Your task to perform on an android device: set default search engine in the chrome app Image 0: 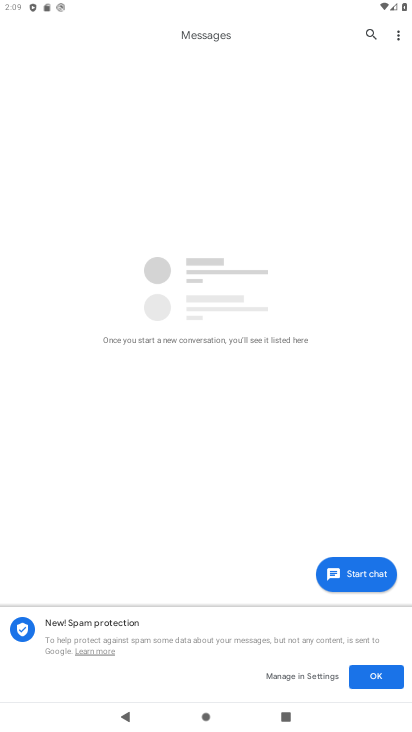
Step 0: press home button
Your task to perform on an android device: set default search engine in the chrome app Image 1: 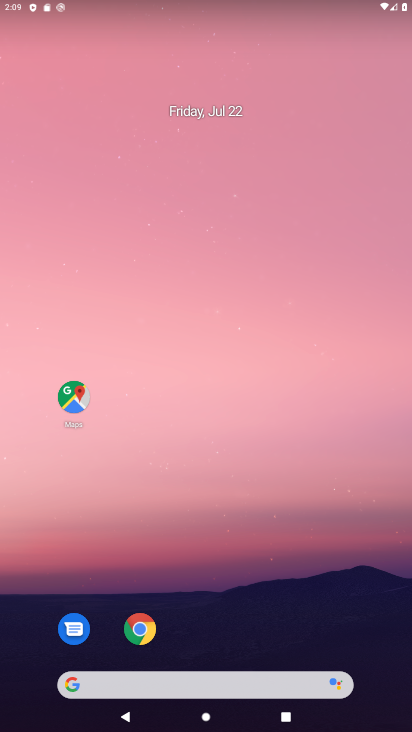
Step 1: click (131, 635)
Your task to perform on an android device: set default search engine in the chrome app Image 2: 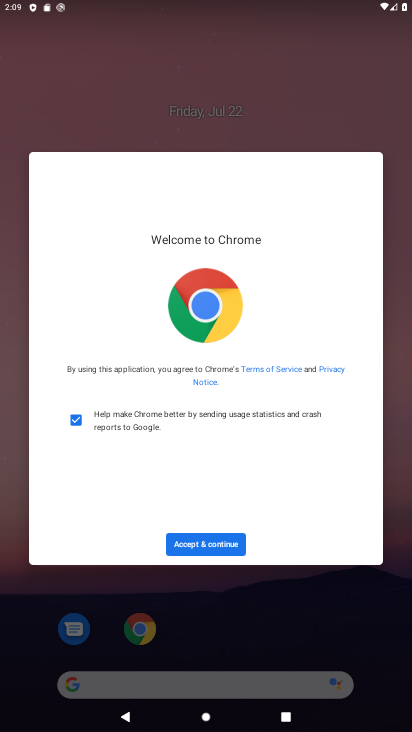
Step 2: click (207, 556)
Your task to perform on an android device: set default search engine in the chrome app Image 3: 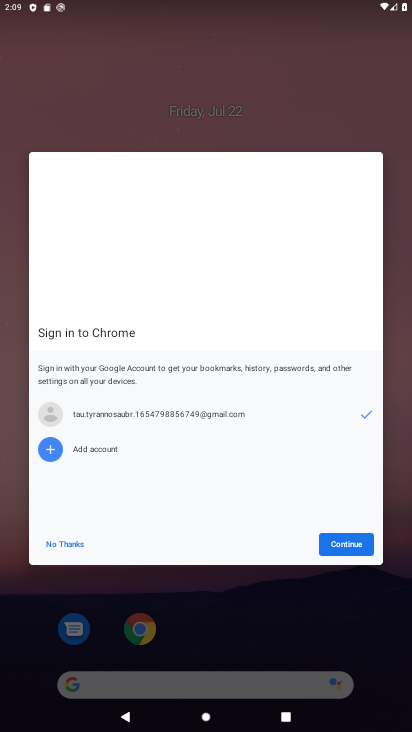
Step 3: click (330, 535)
Your task to perform on an android device: set default search engine in the chrome app Image 4: 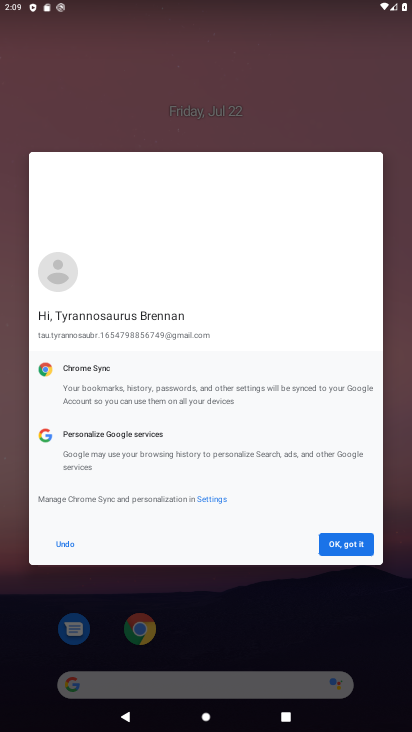
Step 4: click (348, 542)
Your task to perform on an android device: set default search engine in the chrome app Image 5: 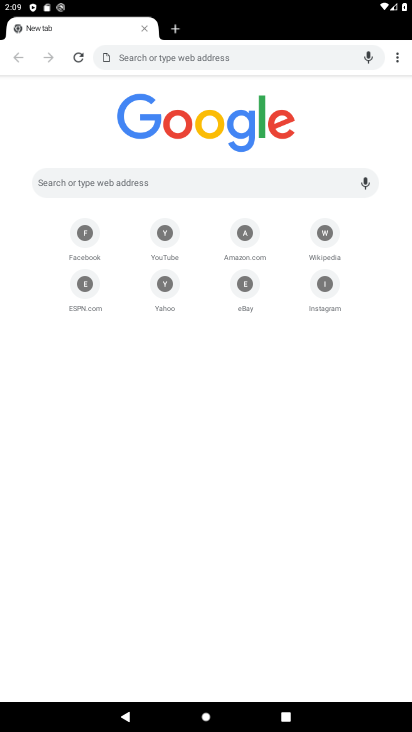
Step 5: drag from (394, 63) to (293, 258)
Your task to perform on an android device: set default search engine in the chrome app Image 6: 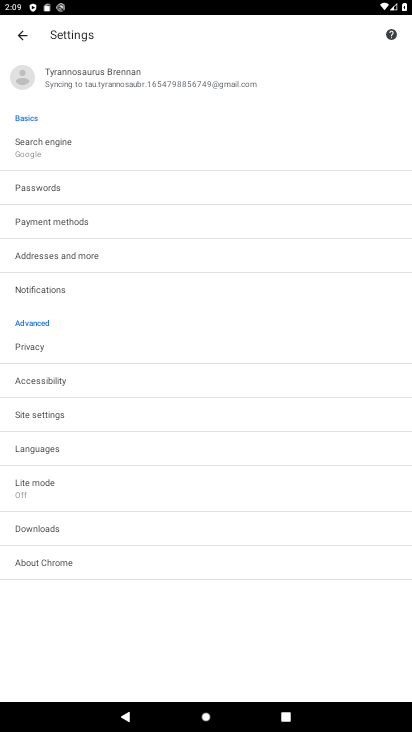
Step 6: click (22, 139)
Your task to perform on an android device: set default search engine in the chrome app Image 7: 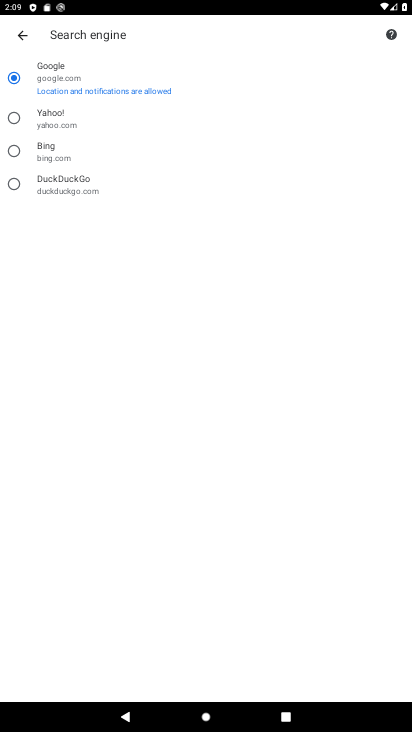
Step 7: click (40, 176)
Your task to perform on an android device: set default search engine in the chrome app Image 8: 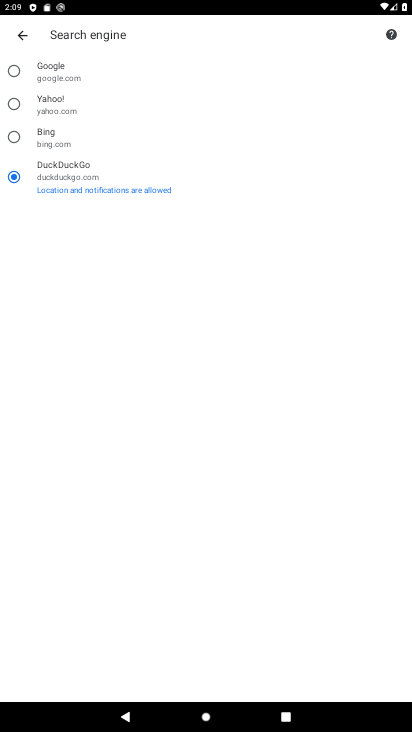
Step 8: task complete